Your task to perform on an android device: toggle show notifications on the lock screen Image 0: 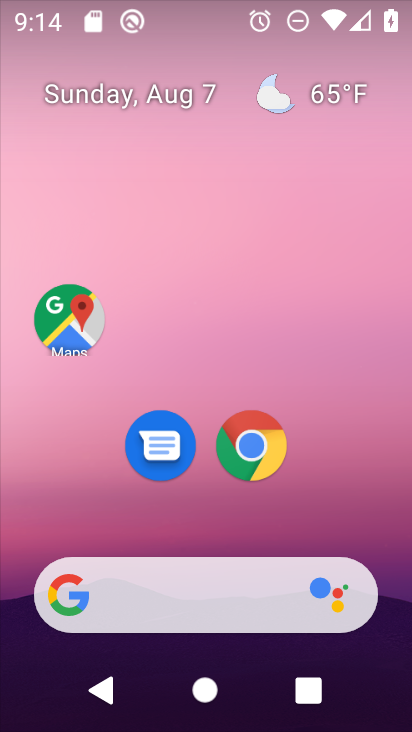
Step 0: press home button
Your task to perform on an android device: toggle show notifications on the lock screen Image 1: 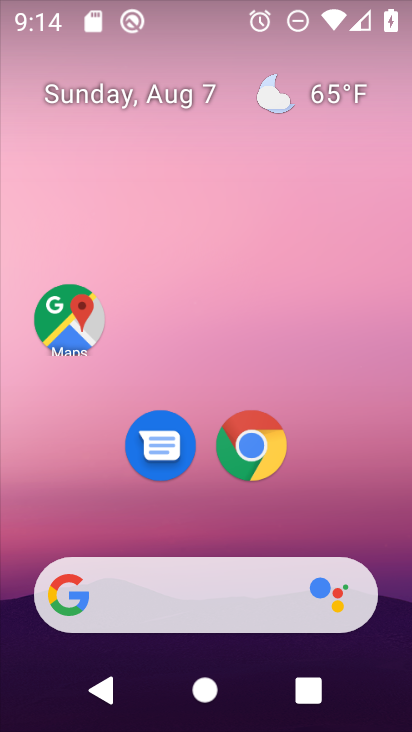
Step 1: drag from (201, 527) to (210, 115)
Your task to perform on an android device: toggle show notifications on the lock screen Image 2: 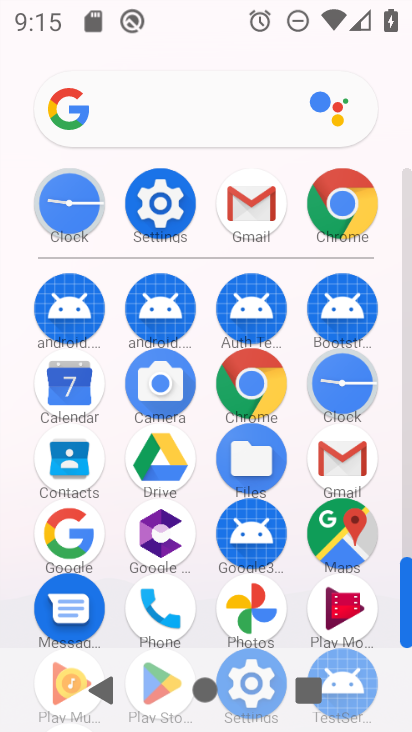
Step 2: click (160, 195)
Your task to perform on an android device: toggle show notifications on the lock screen Image 3: 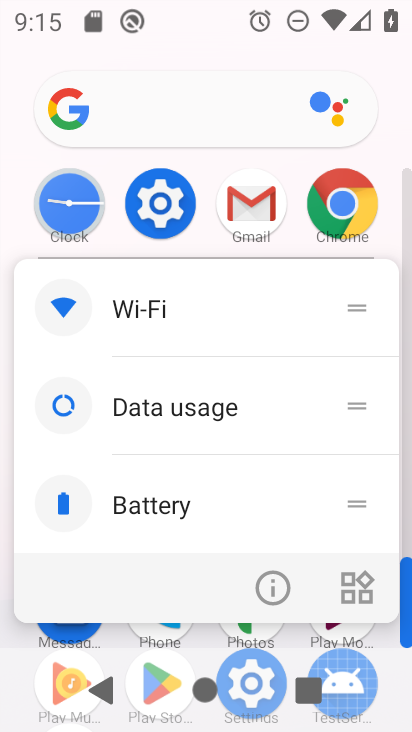
Step 3: click (153, 196)
Your task to perform on an android device: toggle show notifications on the lock screen Image 4: 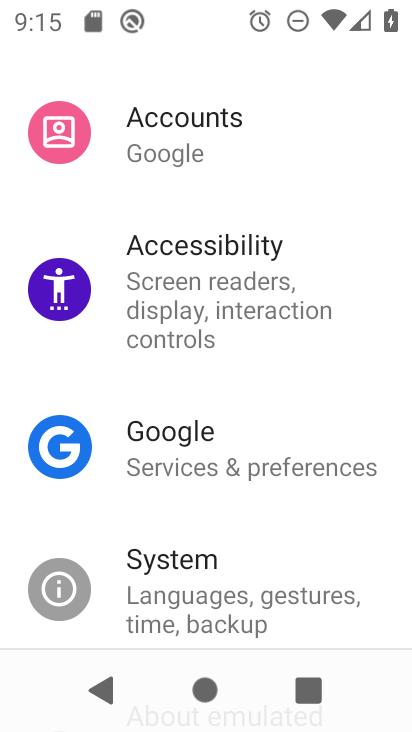
Step 4: drag from (195, 162) to (203, 611)
Your task to perform on an android device: toggle show notifications on the lock screen Image 5: 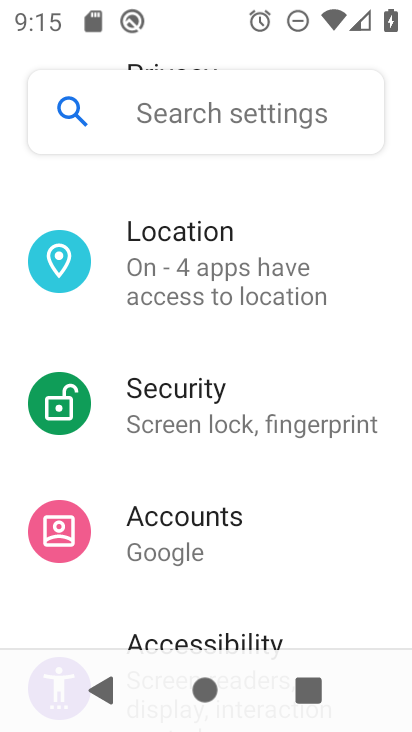
Step 5: drag from (126, 172) to (174, 603)
Your task to perform on an android device: toggle show notifications on the lock screen Image 6: 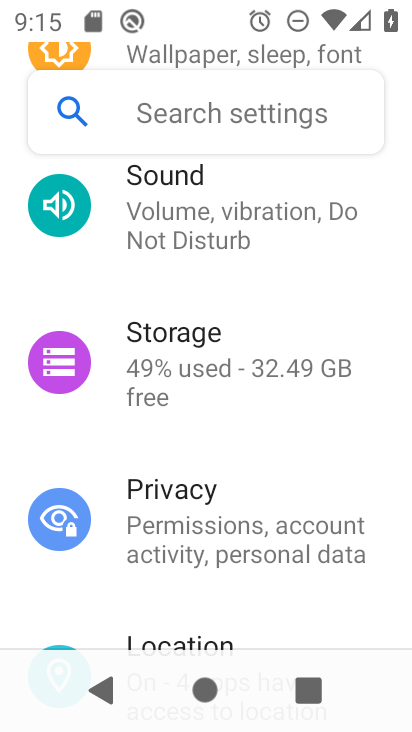
Step 6: drag from (166, 170) to (183, 631)
Your task to perform on an android device: toggle show notifications on the lock screen Image 7: 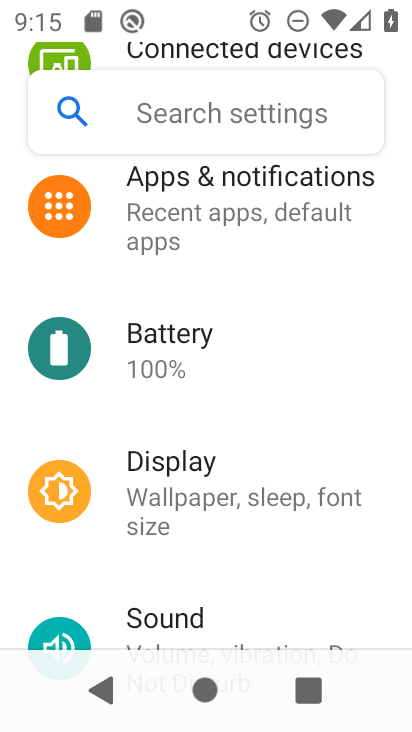
Step 7: click (212, 209)
Your task to perform on an android device: toggle show notifications on the lock screen Image 8: 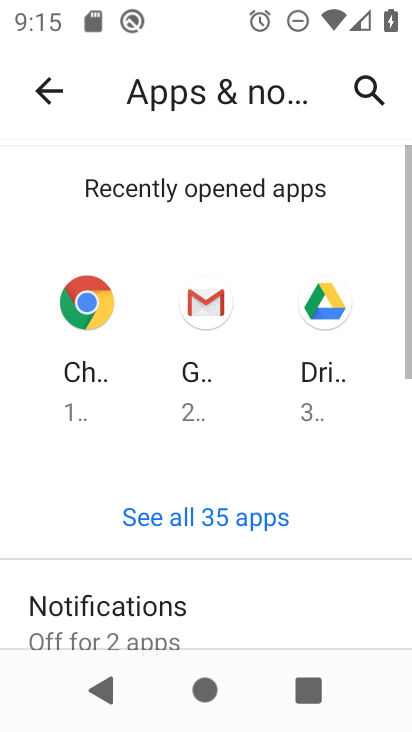
Step 8: click (227, 611)
Your task to perform on an android device: toggle show notifications on the lock screen Image 9: 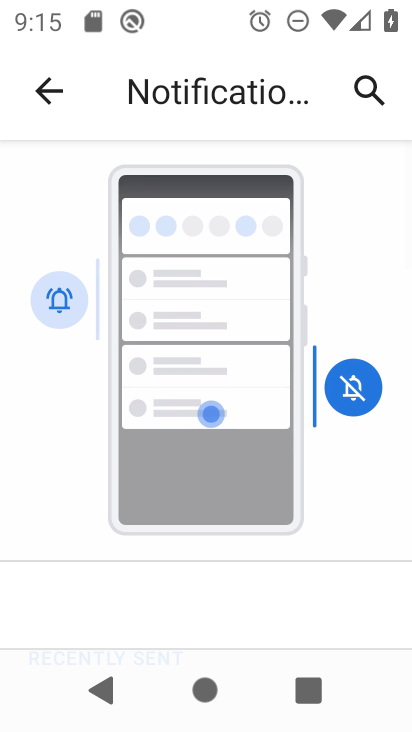
Step 9: drag from (227, 611) to (217, 269)
Your task to perform on an android device: toggle show notifications on the lock screen Image 10: 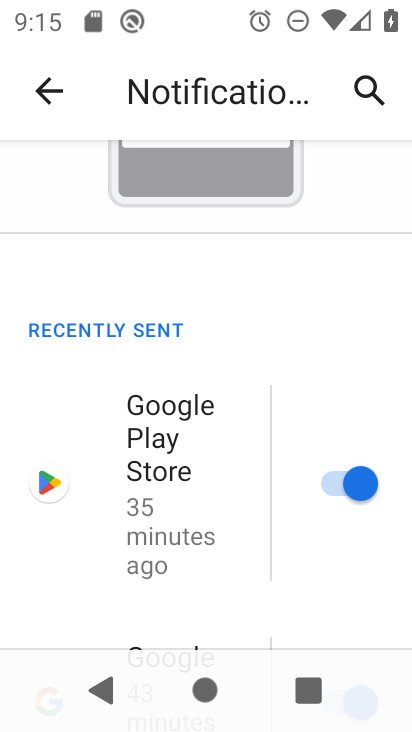
Step 10: drag from (235, 610) to (246, 198)
Your task to perform on an android device: toggle show notifications on the lock screen Image 11: 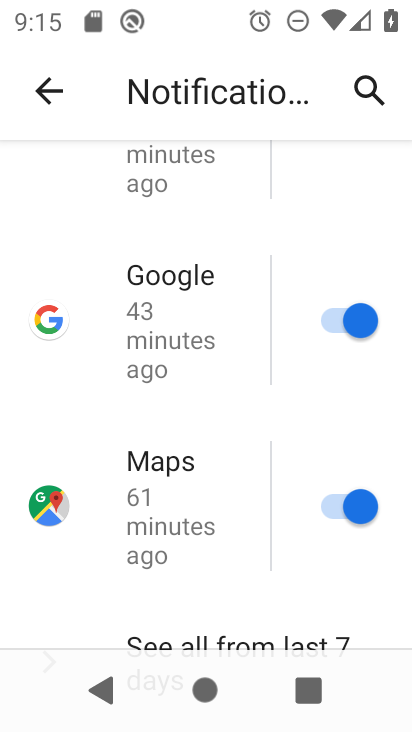
Step 11: drag from (208, 604) to (215, 206)
Your task to perform on an android device: toggle show notifications on the lock screen Image 12: 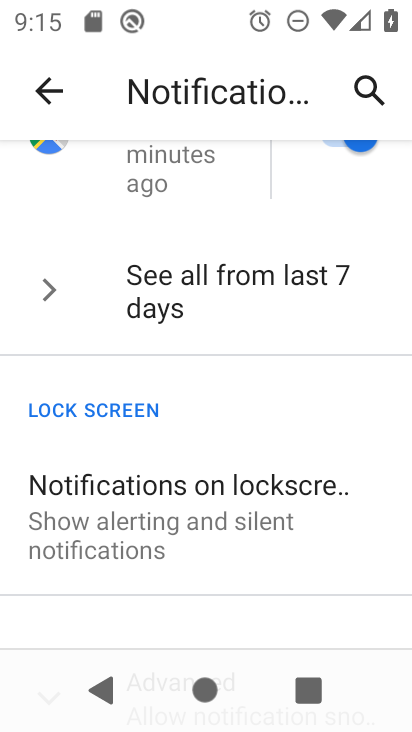
Step 12: click (312, 526)
Your task to perform on an android device: toggle show notifications on the lock screen Image 13: 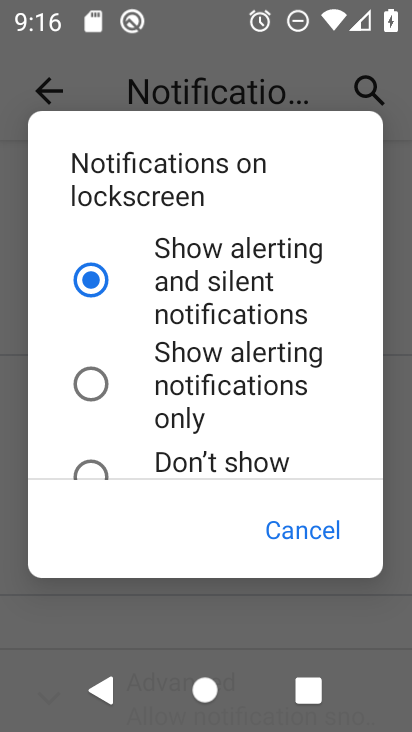
Step 13: click (86, 386)
Your task to perform on an android device: toggle show notifications on the lock screen Image 14: 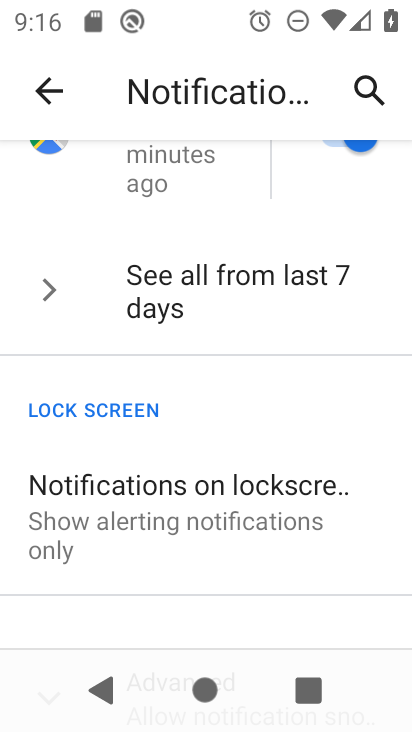
Step 14: task complete